Your task to perform on an android device: toggle notifications settings in the gmail app Image 0: 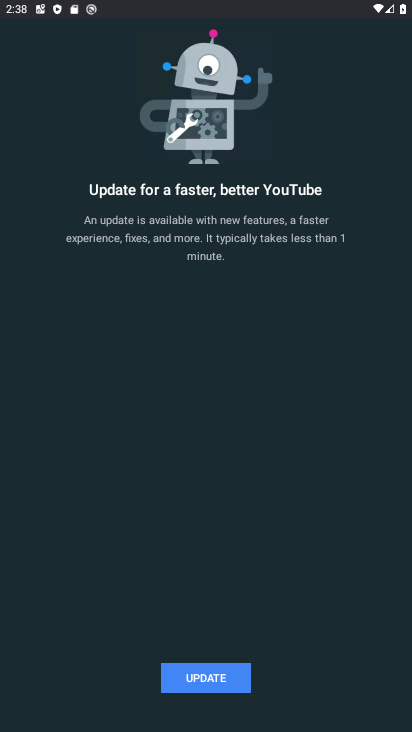
Step 0: press home button
Your task to perform on an android device: toggle notifications settings in the gmail app Image 1: 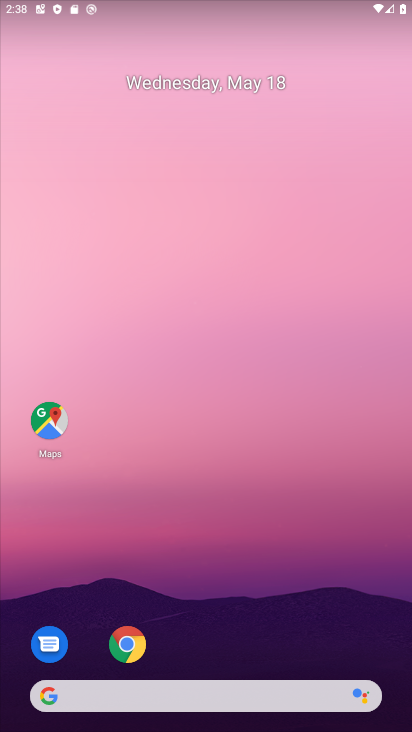
Step 1: drag from (225, 701) to (225, 29)
Your task to perform on an android device: toggle notifications settings in the gmail app Image 2: 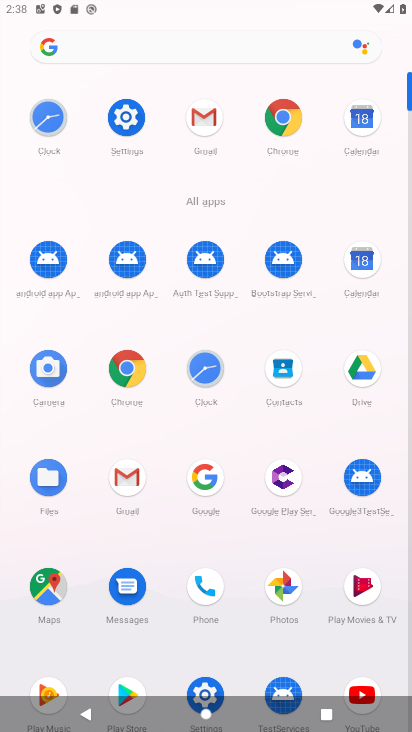
Step 2: click (201, 127)
Your task to perform on an android device: toggle notifications settings in the gmail app Image 3: 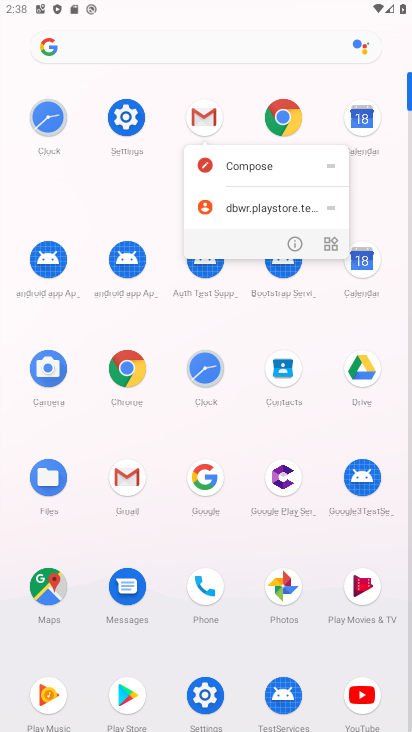
Step 3: click (296, 236)
Your task to perform on an android device: toggle notifications settings in the gmail app Image 4: 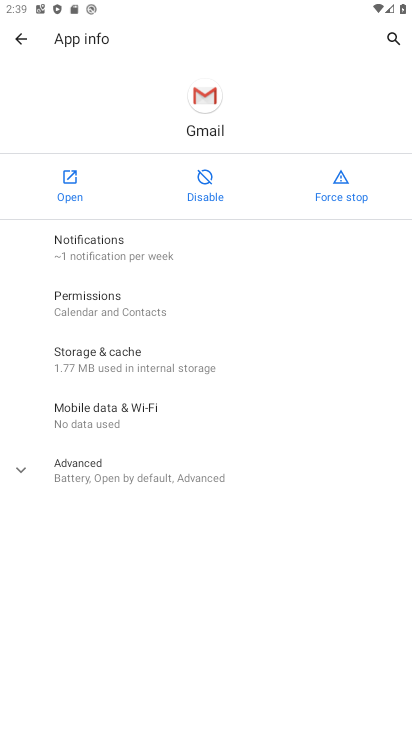
Step 4: click (267, 248)
Your task to perform on an android device: toggle notifications settings in the gmail app Image 5: 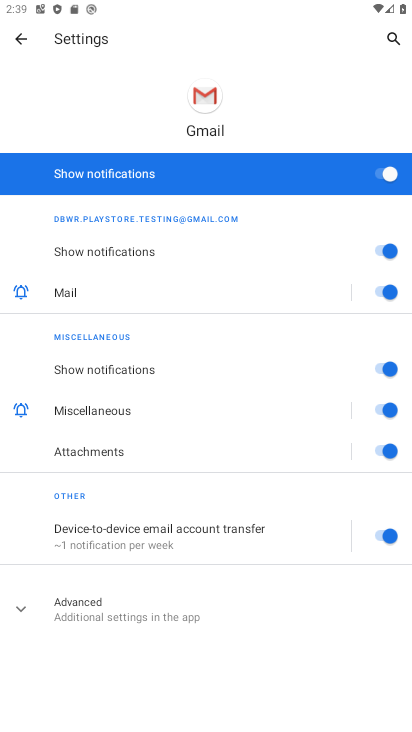
Step 5: click (384, 178)
Your task to perform on an android device: toggle notifications settings in the gmail app Image 6: 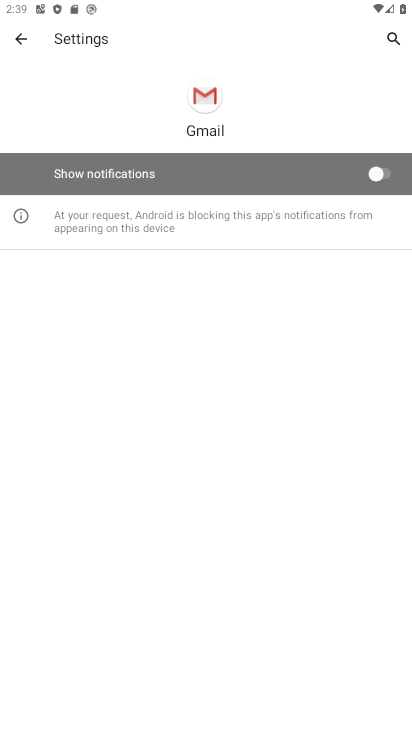
Step 6: task complete